Your task to perform on an android device: Open CNN.com Image 0: 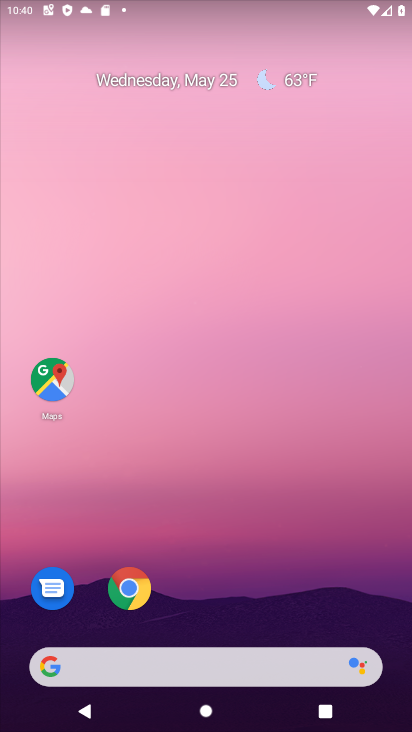
Step 0: click (129, 588)
Your task to perform on an android device: Open CNN.com Image 1: 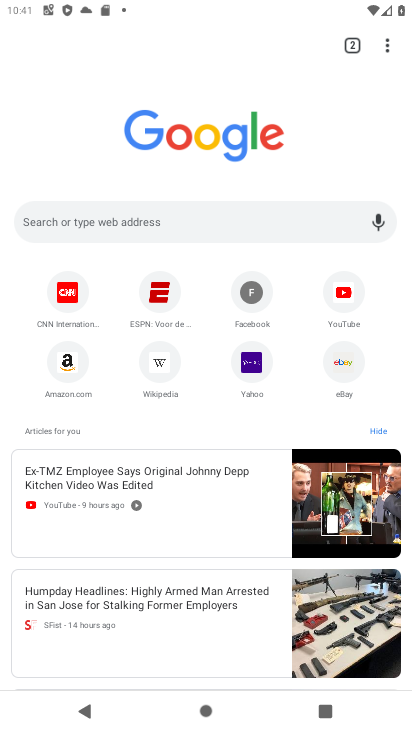
Step 1: click (206, 226)
Your task to perform on an android device: Open CNN.com Image 2: 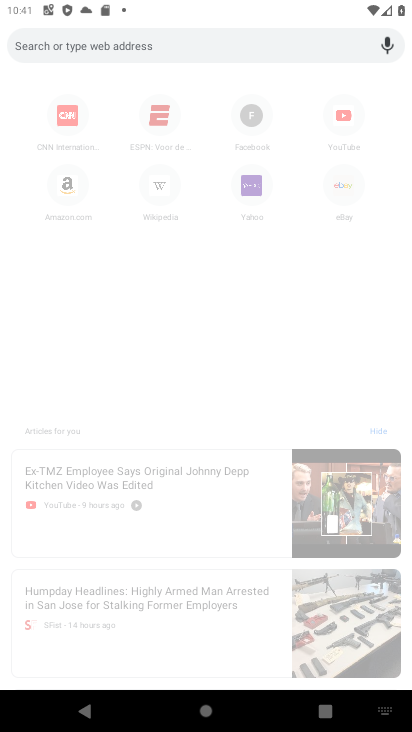
Step 2: type "cnn.com"
Your task to perform on an android device: Open CNN.com Image 3: 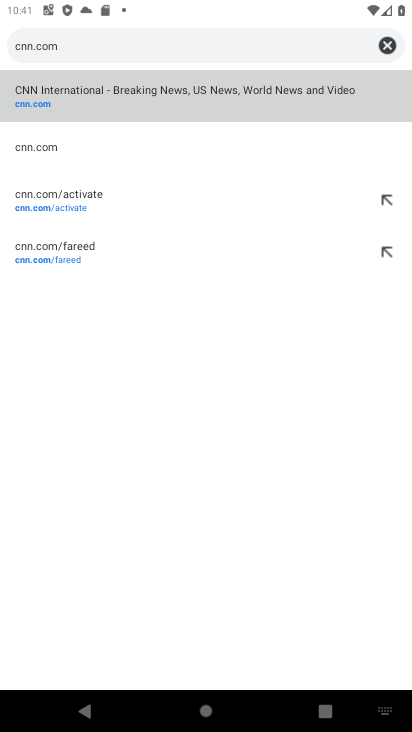
Step 3: click (76, 110)
Your task to perform on an android device: Open CNN.com Image 4: 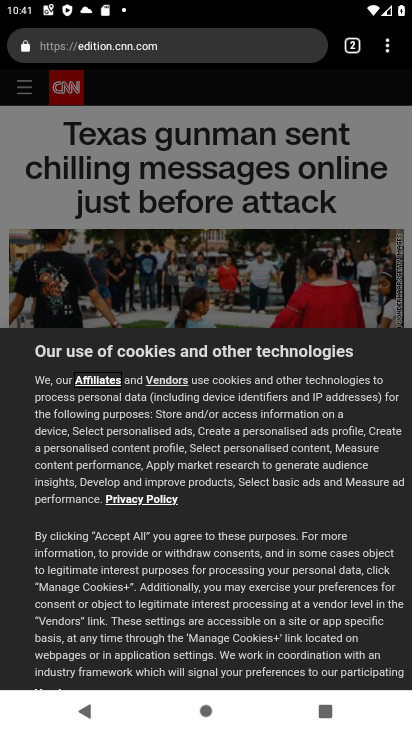
Step 4: task complete